Your task to perform on an android device: make emails show in primary in the gmail app Image 0: 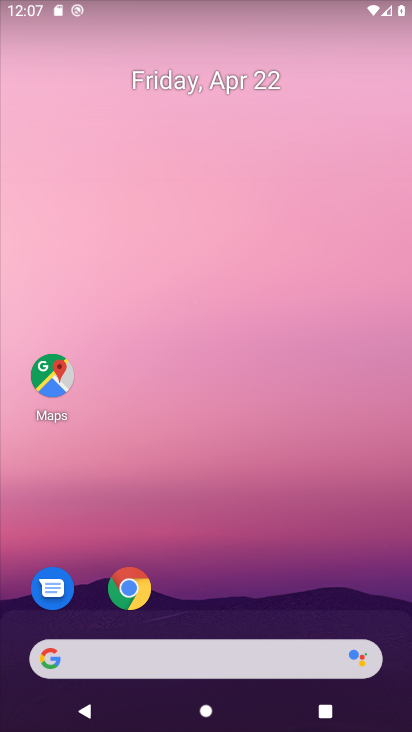
Step 0: drag from (216, 349) to (259, 2)
Your task to perform on an android device: make emails show in primary in the gmail app Image 1: 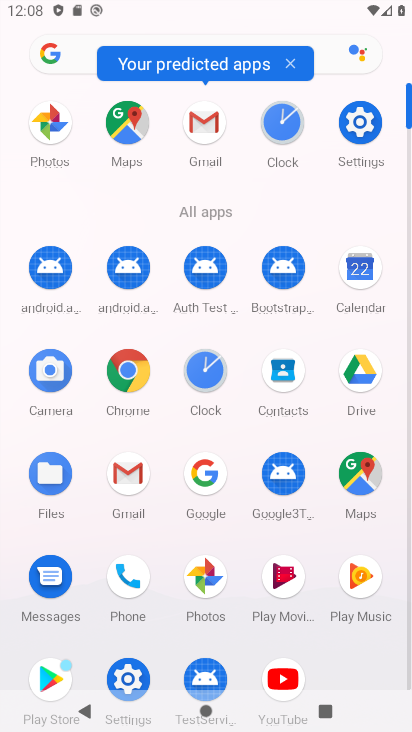
Step 1: click (207, 125)
Your task to perform on an android device: make emails show in primary in the gmail app Image 2: 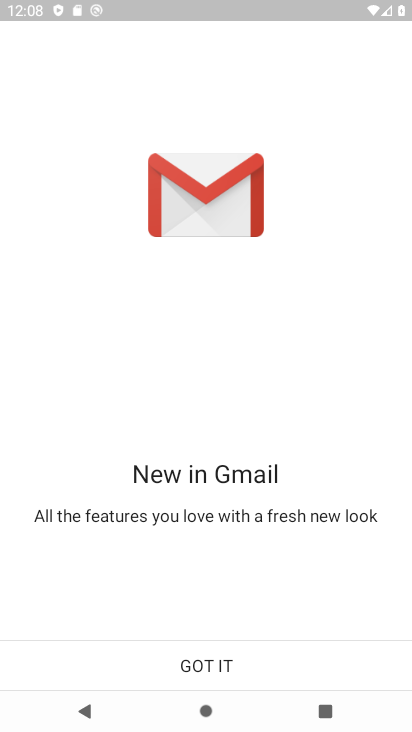
Step 2: click (200, 651)
Your task to perform on an android device: make emails show in primary in the gmail app Image 3: 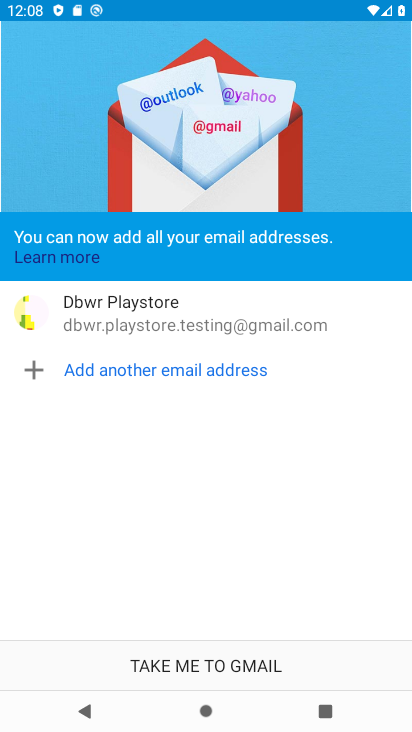
Step 3: click (200, 651)
Your task to perform on an android device: make emails show in primary in the gmail app Image 4: 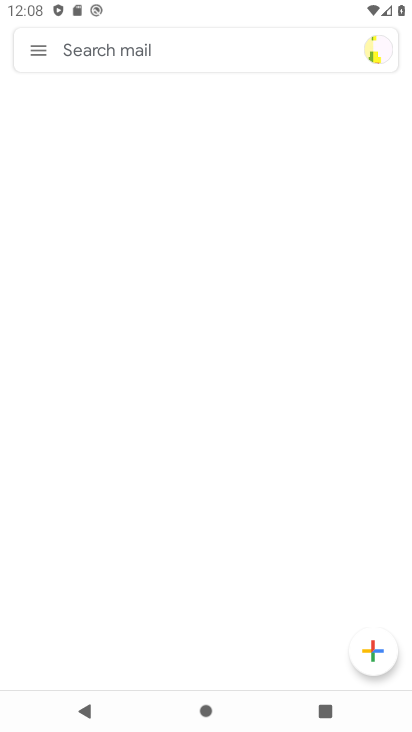
Step 4: click (36, 45)
Your task to perform on an android device: make emails show in primary in the gmail app Image 5: 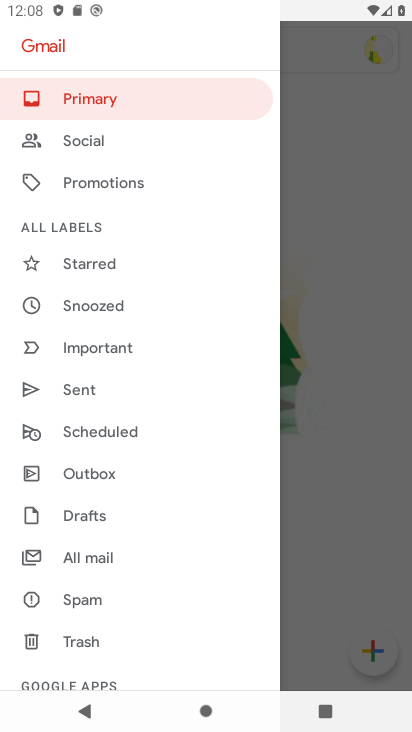
Step 5: drag from (112, 545) to (130, 329)
Your task to perform on an android device: make emails show in primary in the gmail app Image 6: 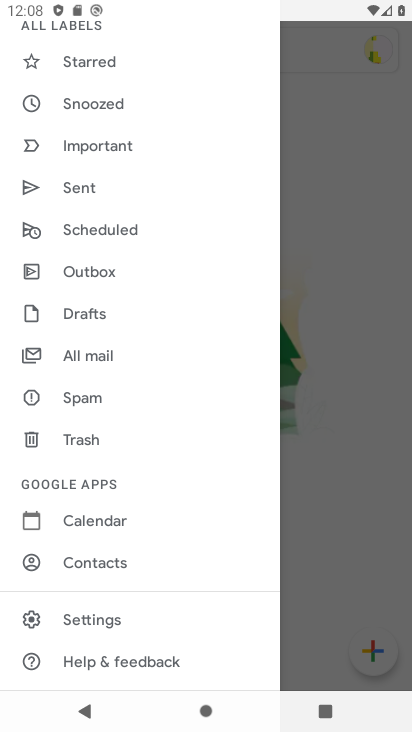
Step 6: click (113, 619)
Your task to perform on an android device: make emails show in primary in the gmail app Image 7: 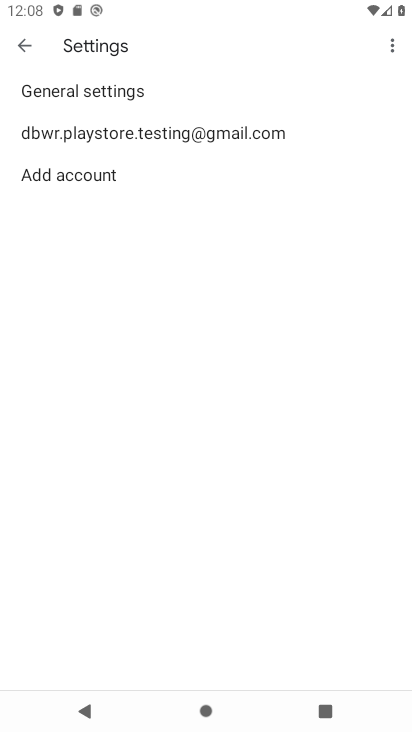
Step 7: click (113, 133)
Your task to perform on an android device: make emails show in primary in the gmail app Image 8: 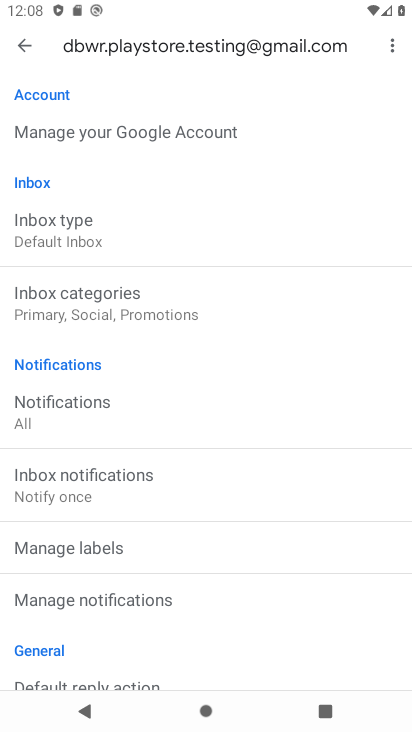
Step 8: click (112, 239)
Your task to perform on an android device: make emails show in primary in the gmail app Image 9: 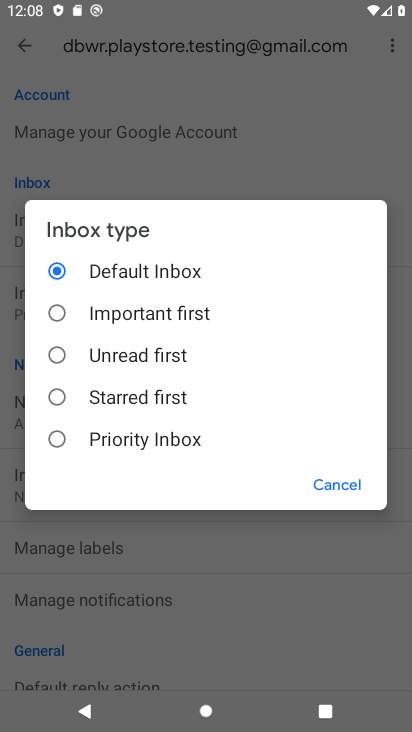
Step 9: click (345, 482)
Your task to perform on an android device: make emails show in primary in the gmail app Image 10: 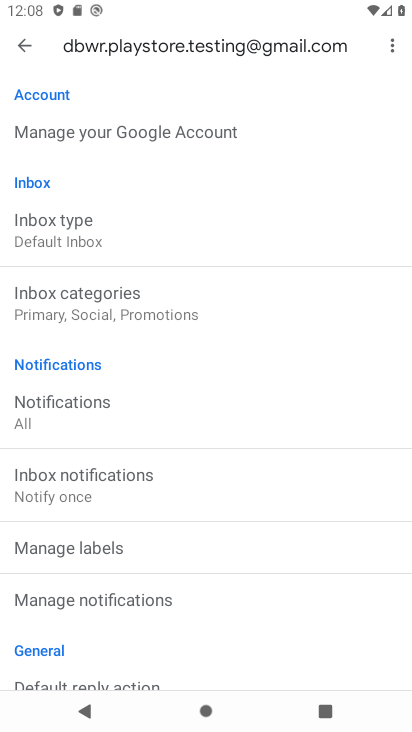
Step 10: click (109, 297)
Your task to perform on an android device: make emails show in primary in the gmail app Image 11: 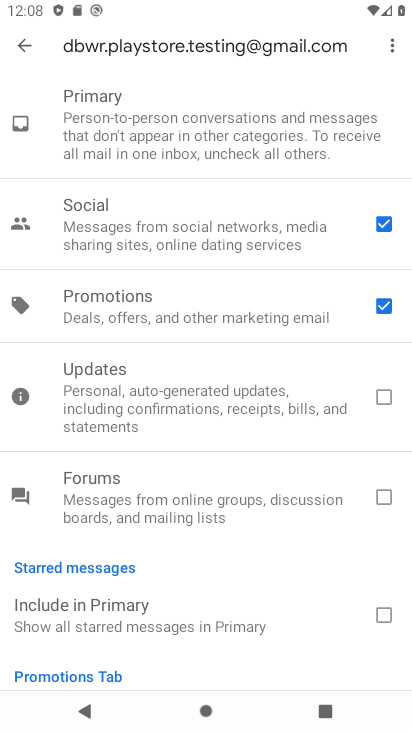
Step 11: click (286, 141)
Your task to perform on an android device: make emails show in primary in the gmail app Image 12: 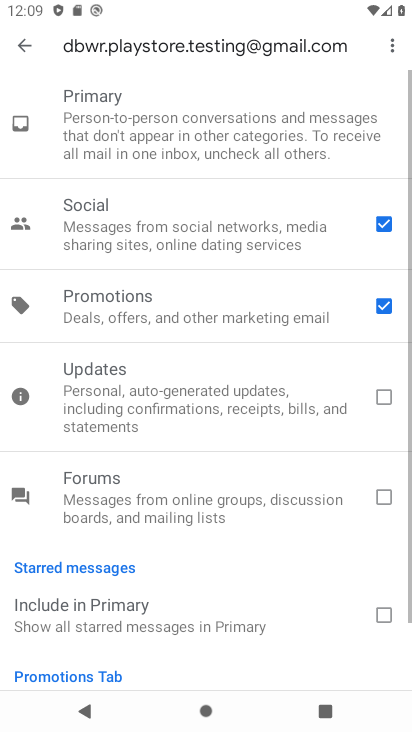
Step 12: task complete